Your task to perform on an android device: refresh tabs in the chrome app Image 0: 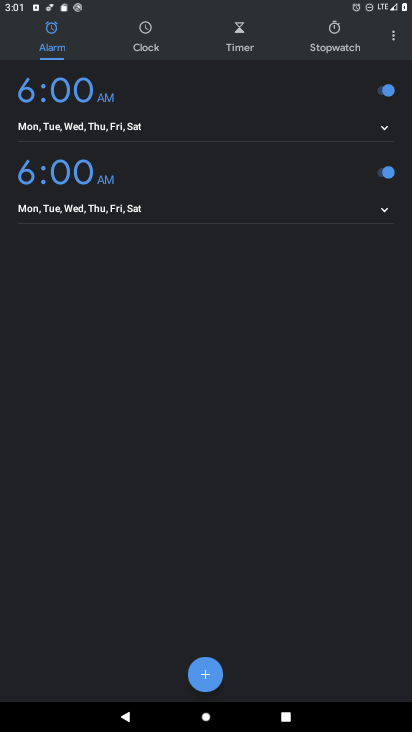
Step 0: press home button
Your task to perform on an android device: refresh tabs in the chrome app Image 1: 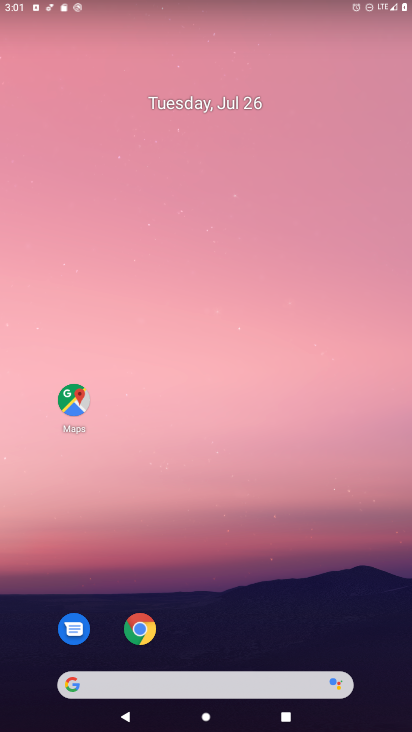
Step 1: click (140, 629)
Your task to perform on an android device: refresh tabs in the chrome app Image 2: 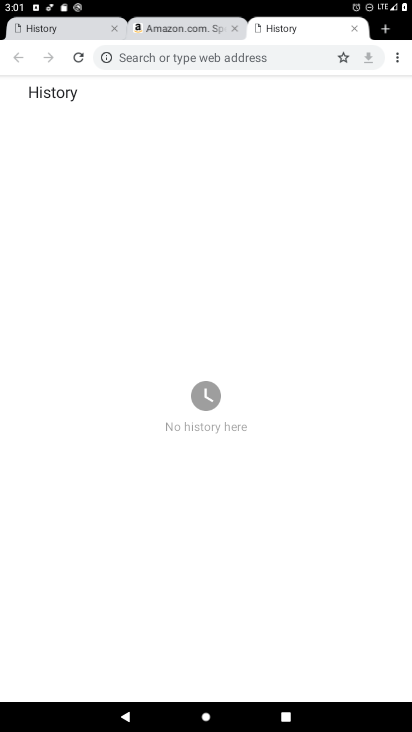
Step 2: click (77, 56)
Your task to perform on an android device: refresh tabs in the chrome app Image 3: 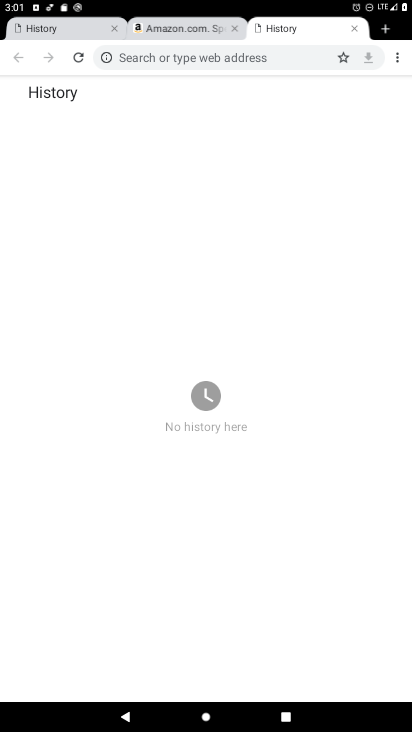
Step 3: task complete